Your task to perform on an android device: turn off location Image 0: 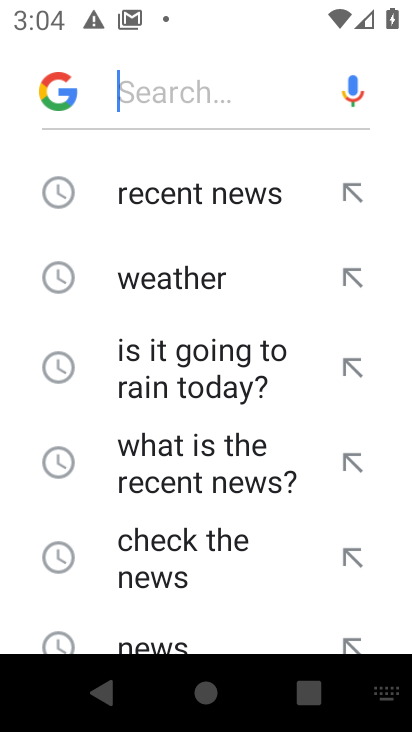
Step 0: press home button
Your task to perform on an android device: turn off location Image 1: 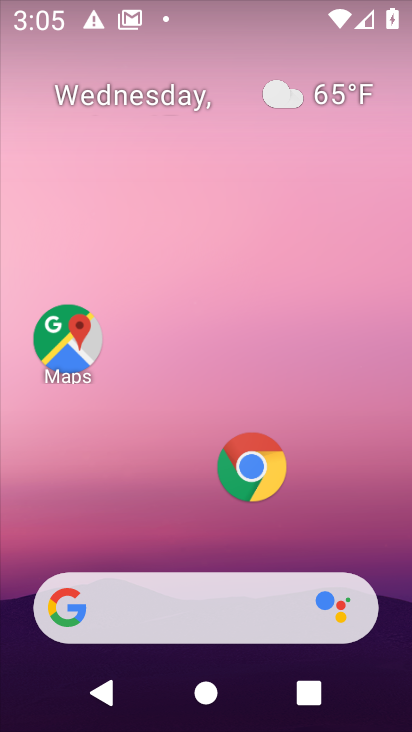
Step 1: task complete